Your task to perform on an android device: Open Google Maps and go to "Timeline" Image 0: 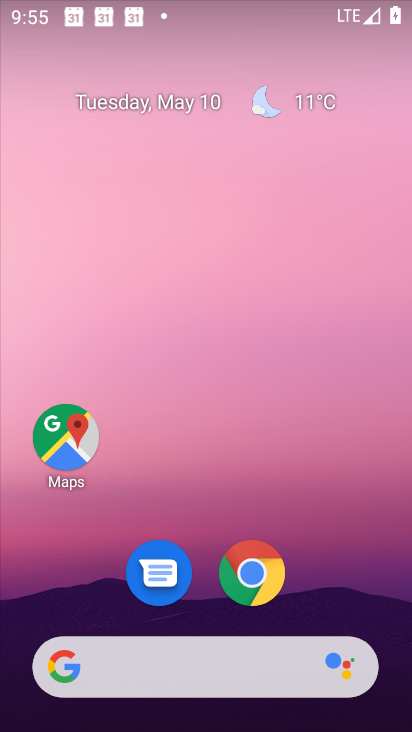
Step 0: click (74, 422)
Your task to perform on an android device: Open Google Maps and go to "Timeline" Image 1: 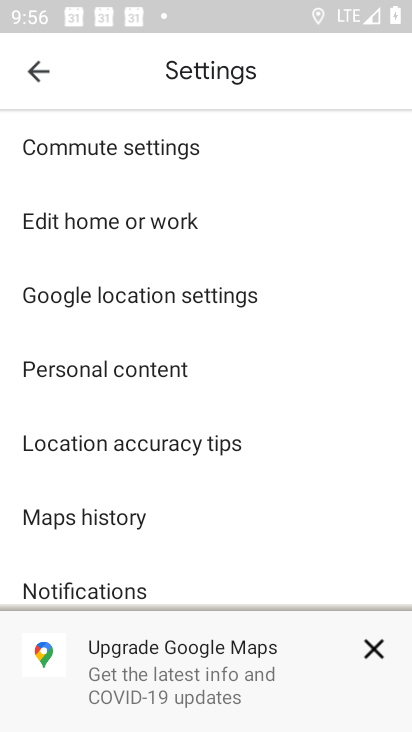
Step 1: press back button
Your task to perform on an android device: Open Google Maps and go to "Timeline" Image 2: 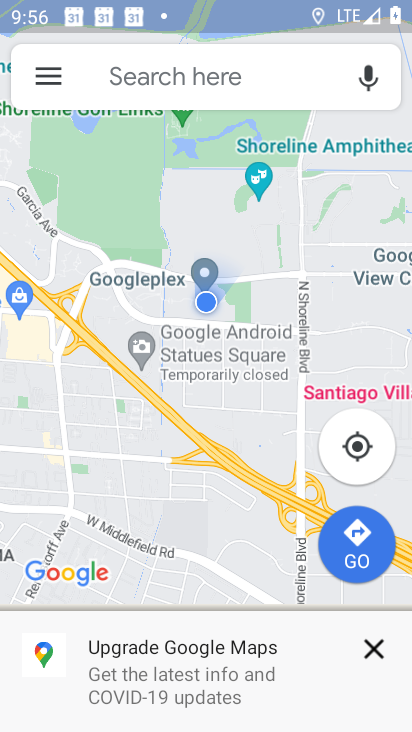
Step 2: click (46, 75)
Your task to perform on an android device: Open Google Maps and go to "Timeline" Image 3: 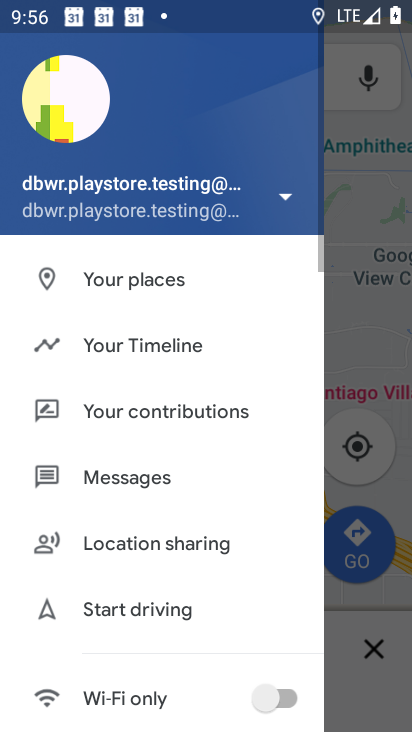
Step 3: click (159, 344)
Your task to perform on an android device: Open Google Maps and go to "Timeline" Image 4: 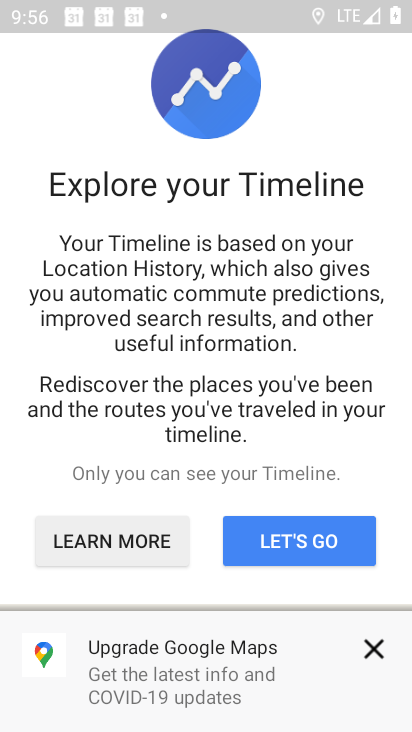
Step 4: drag from (215, 562) to (221, 247)
Your task to perform on an android device: Open Google Maps and go to "Timeline" Image 5: 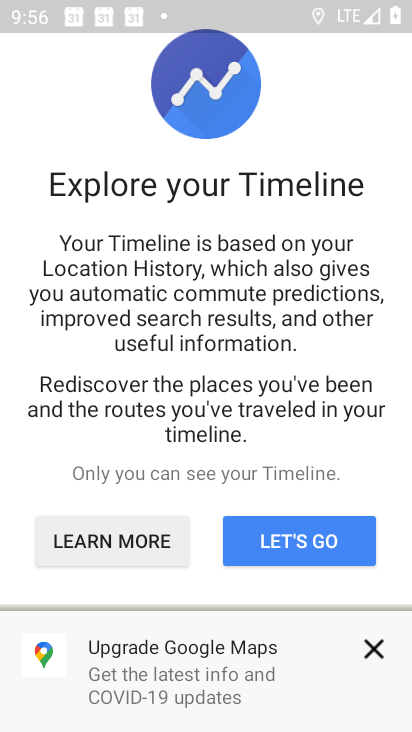
Step 5: drag from (234, 403) to (254, 248)
Your task to perform on an android device: Open Google Maps and go to "Timeline" Image 6: 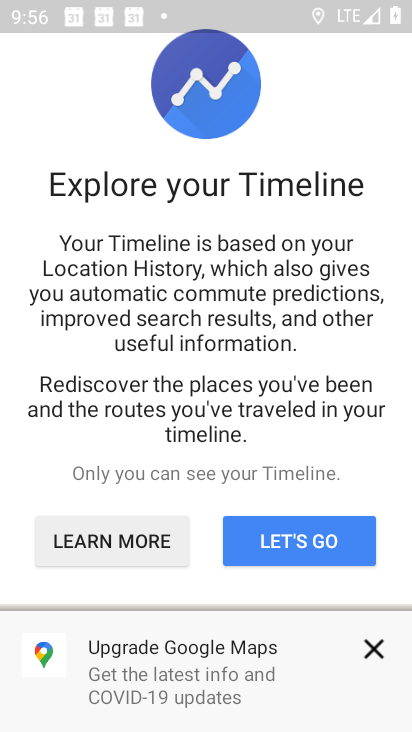
Step 6: click (287, 538)
Your task to perform on an android device: Open Google Maps and go to "Timeline" Image 7: 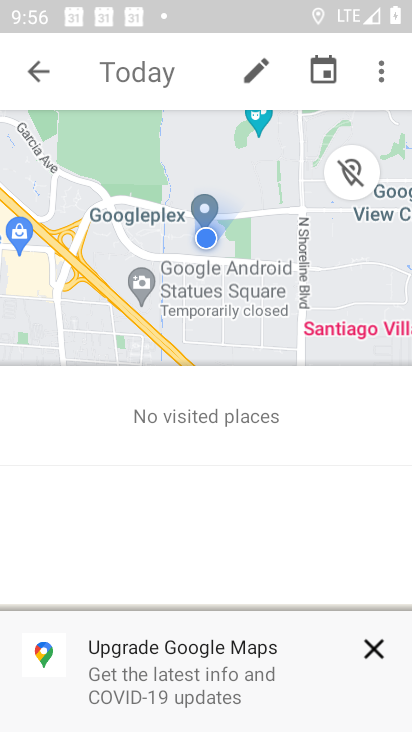
Step 7: task complete